Your task to perform on an android device: Check the news Image 0: 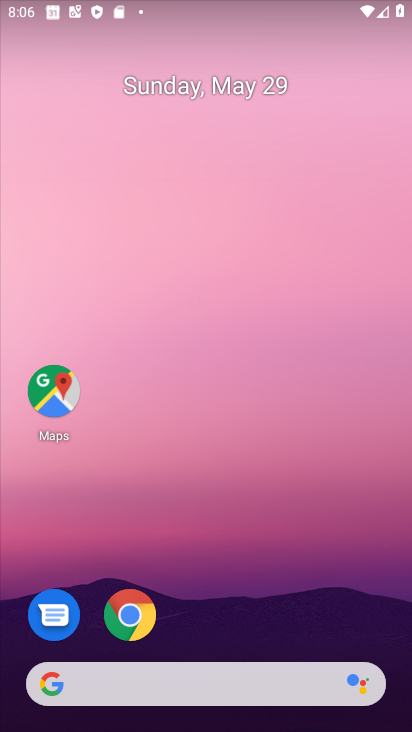
Step 0: click (268, 693)
Your task to perform on an android device: Check the news Image 1: 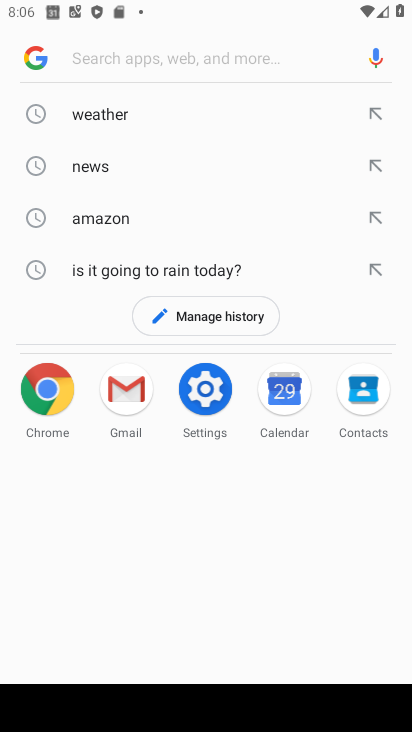
Step 1: click (76, 172)
Your task to perform on an android device: Check the news Image 2: 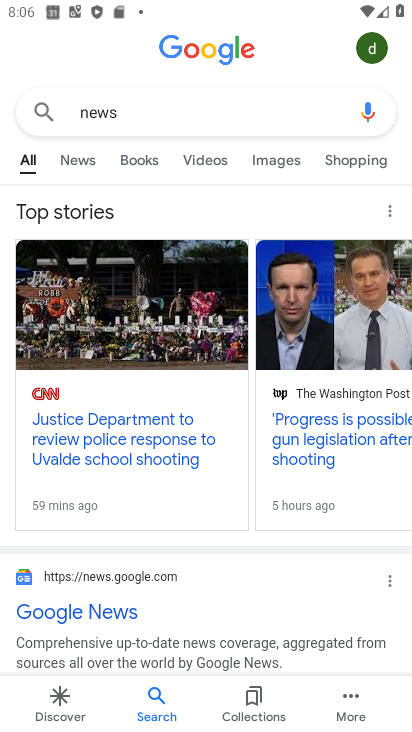
Step 2: task complete